Your task to perform on an android device: change keyboard looks Image 0: 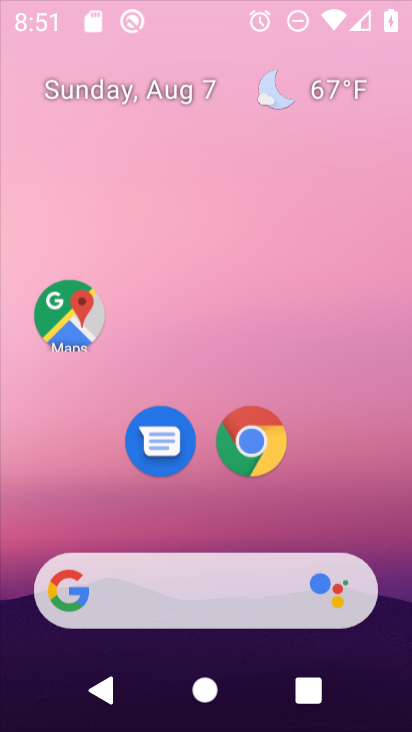
Step 0: press home button
Your task to perform on an android device: change keyboard looks Image 1: 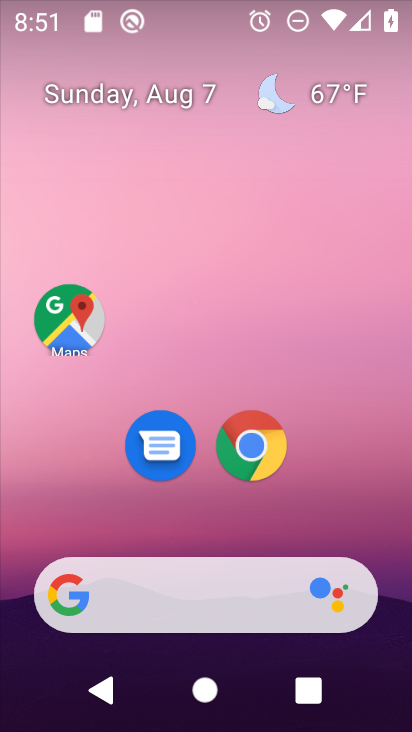
Step 1: drag from (308, 535) to (345, 94)
Your task to perform on an android device: change keyboard looks Image 2: 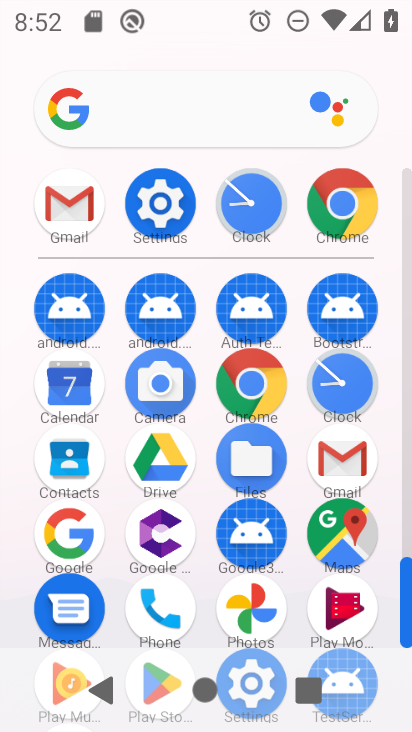
Step 2: click (157, 197)
Your task to perform on an android device: change keyboard looks Image 3: 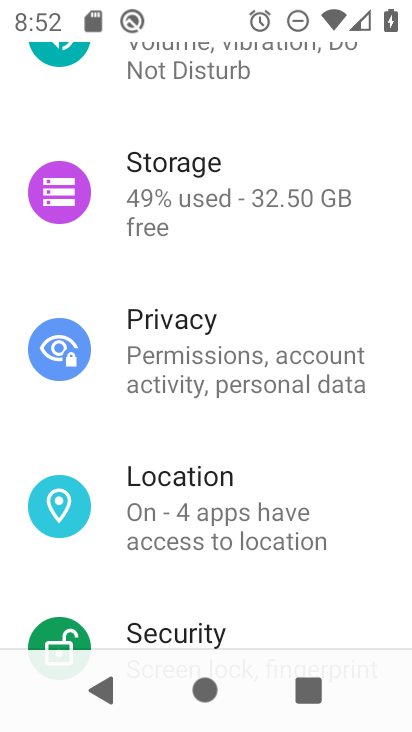
Step 3: drag from (233, 612) to (267, 147)
Your task to perform on an android device: change keyboard looks Image 4: 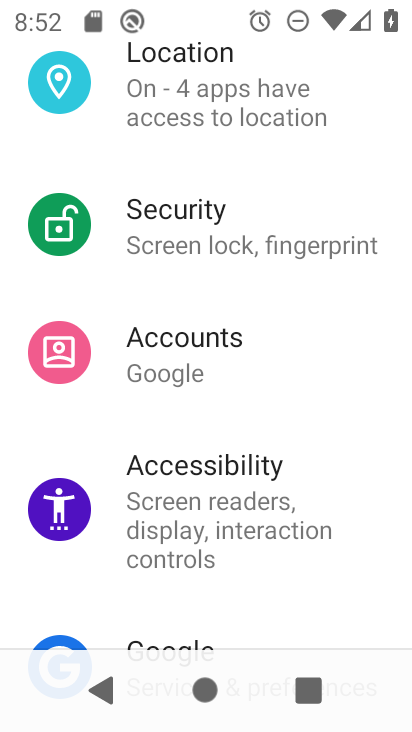
Step 4: drag from (228, 565) to (218, 191)
Your task to perform on an android device: change keyboard looks Image 5: 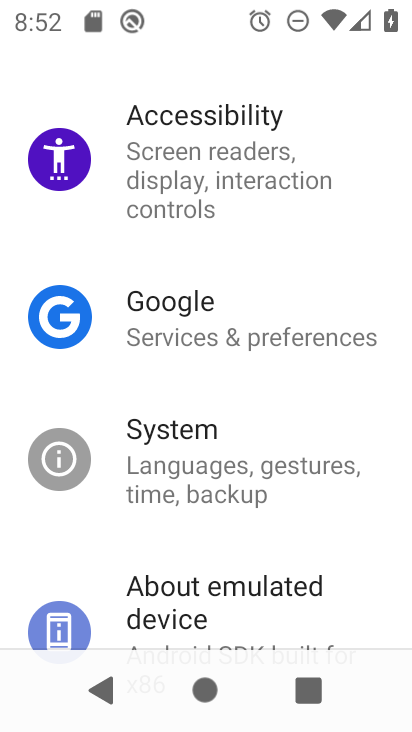
Step 5: click (240, 449)
Your task to perform on an android device: change keyboard looks Image 6: 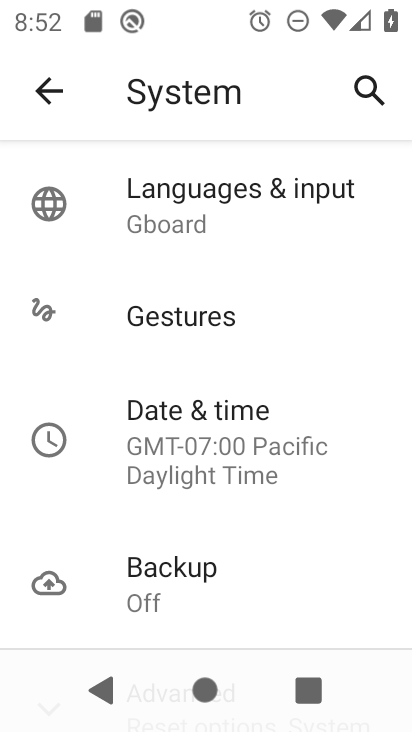
Step 6: click (157, 214)
Your task to perform on an android device: change keyboard looks Image 7: 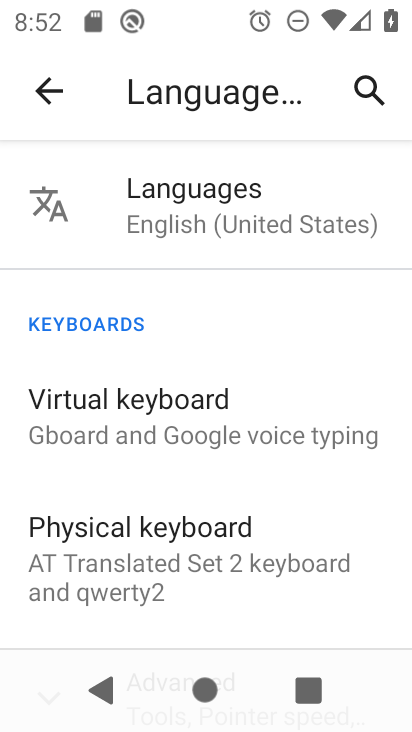
Step 7: click (186, 417)
Your task to perform on an android device: change keyboard looks Image 8: 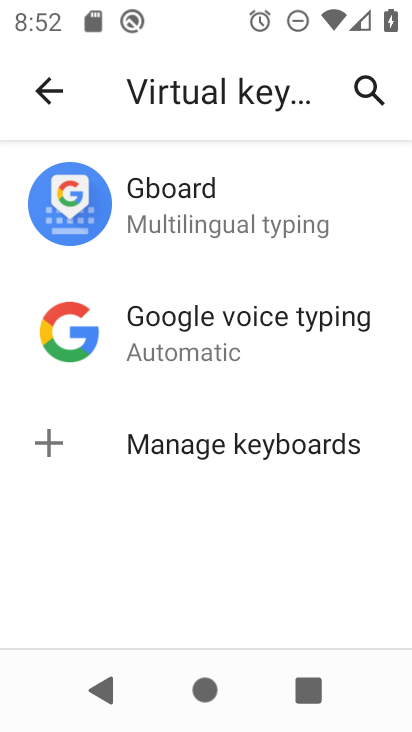
Step 8: click (185, 201)
Your task to perform on an android device: change keyboard looks Image 9: 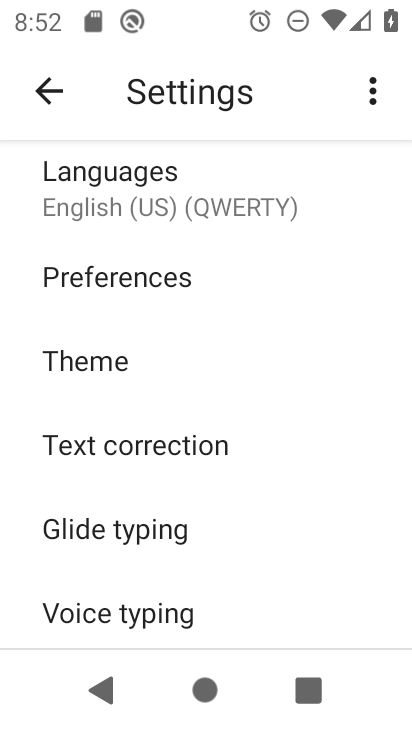
Step 9: click (146, 363)
Your task to perform on an android device: change keyboard looks Image 10: 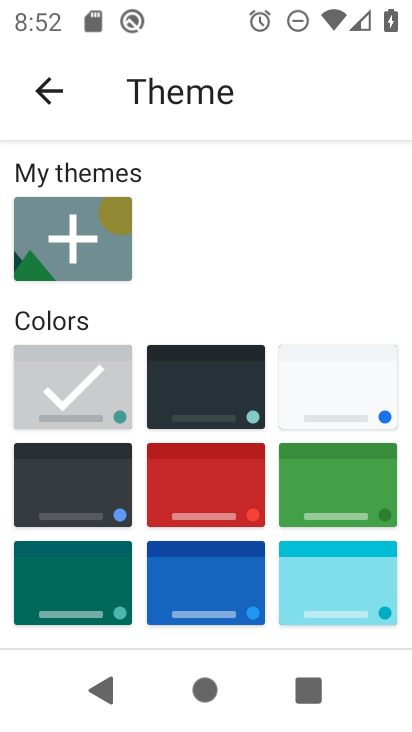
Step 10: click (316, 590)
Your task to perform on an android device: change keyboard looks Image 11: 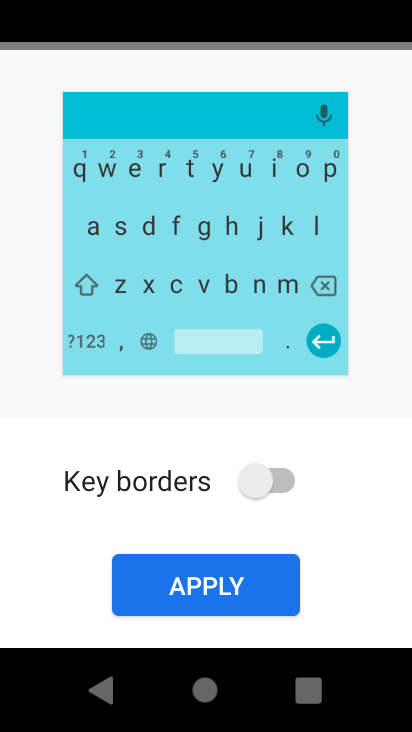
Step 11: click (238, 572)
Your task to perform on an android device: change keyboard looks Image 12: 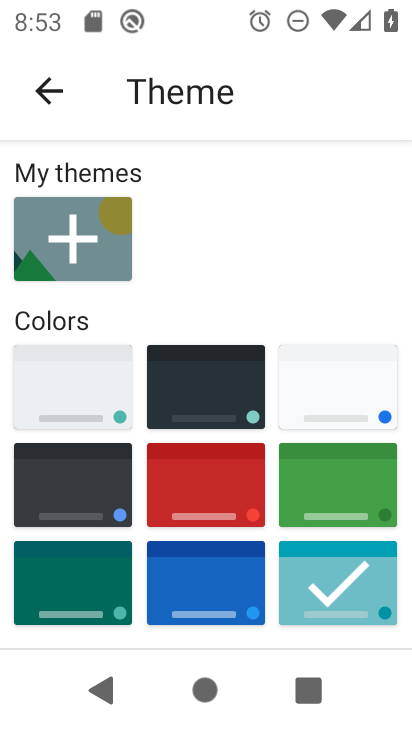
Step 12: task complete